Your task to perform on an android device: add a label to a message in the gmail app Image 0: 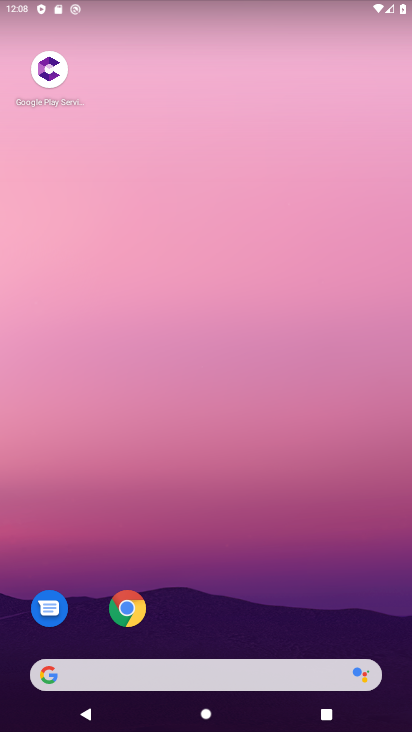
Step 0: drag from (234, 644) to (244, 0)
Your task to perform on an android device: add a label to a message in the gmail app Image 1: 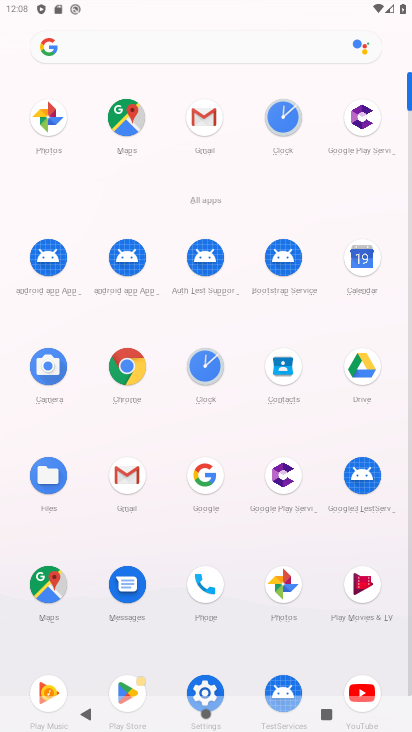
Step 1: click (193, 113)
Your task to perform on an android device: add a label to a message in the gmail app Image 2: 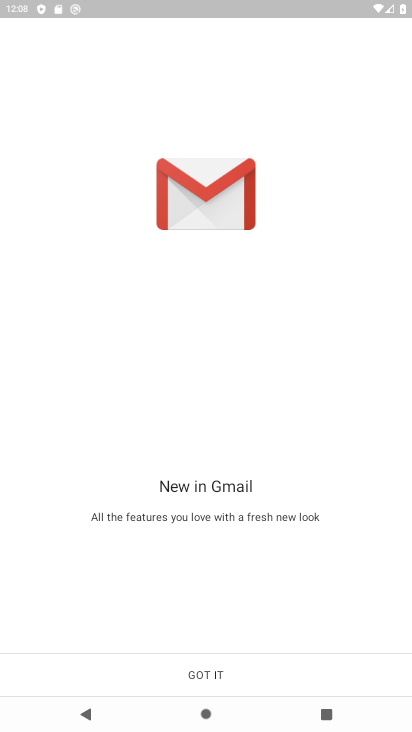
Step 2: click (208, 663)
Your task to perform on an android device: add a label to a message in the gmail app Image 3: 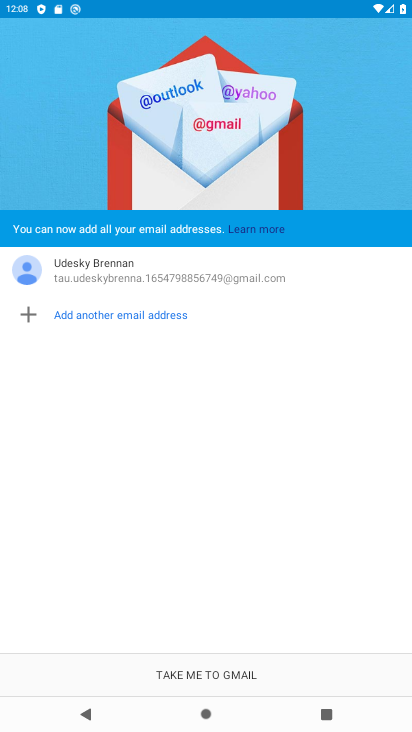
Step 3: click (215, 677)
Your task to perform on an android device: add a label to a message in the gmail app Image 4: 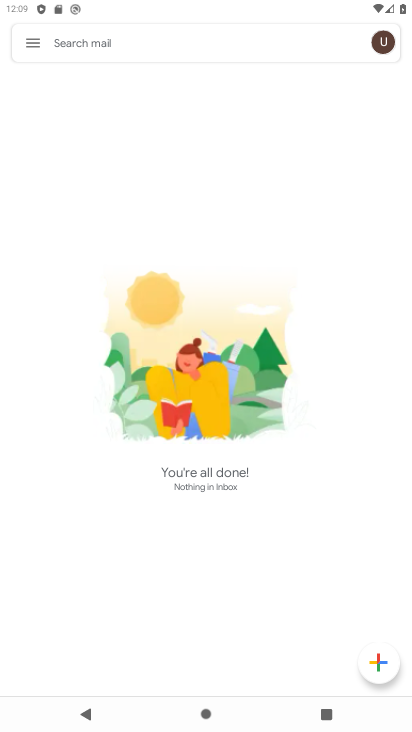
Step 4: task complete